Your task to perform on an android device: turn off sleep mode Image 0: 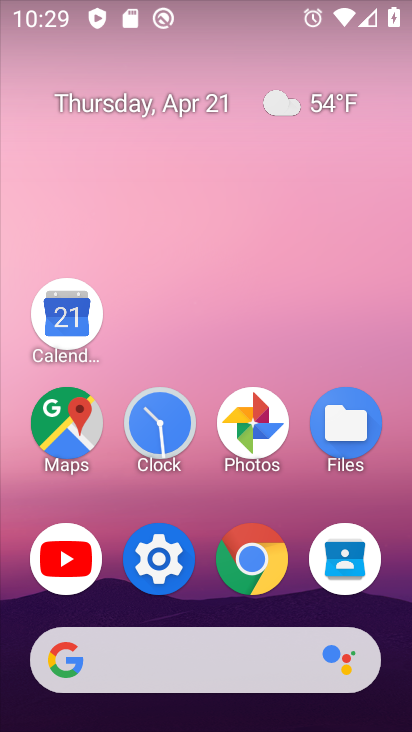
Step 0: click (159, 559)
Your task to perform on an android device: turn off sleep mode Image 1: 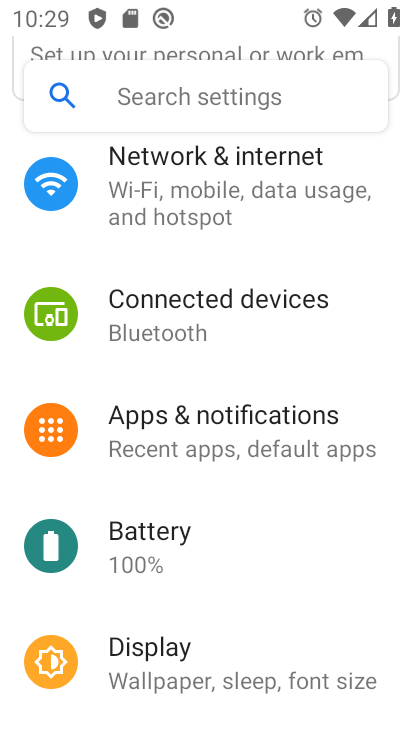
Step 1: click (142, 641)
Your task to perform on an android device: turn off sleep mode Image 2: 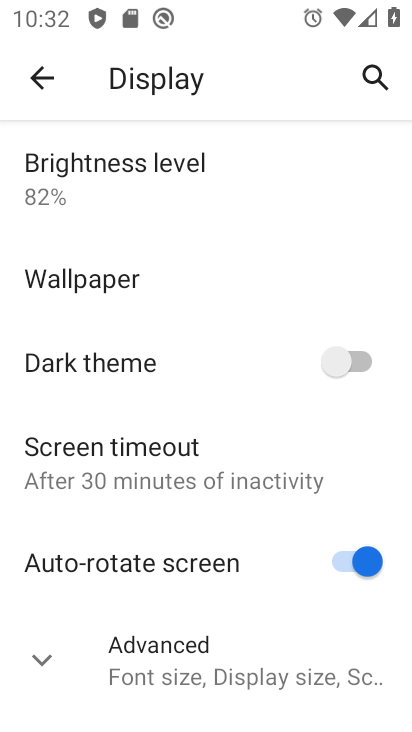
Step 2: click (83, 186)
Your task to perform on an android device: turn off sleep mode Image 3: 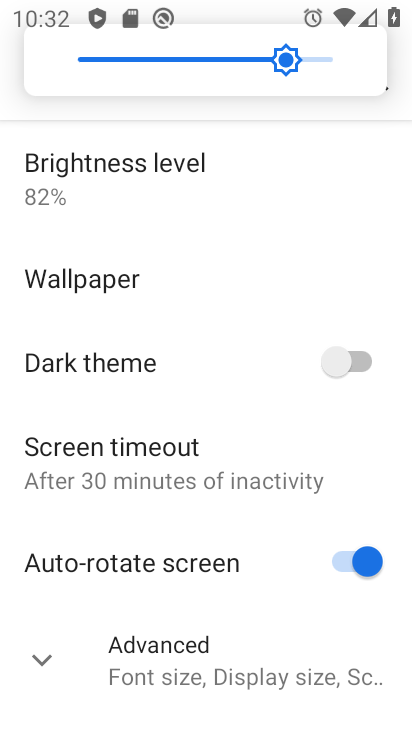
Step 3: task complete